Your task to perform on an android device: Do I have any events tomorrow? Image 0: 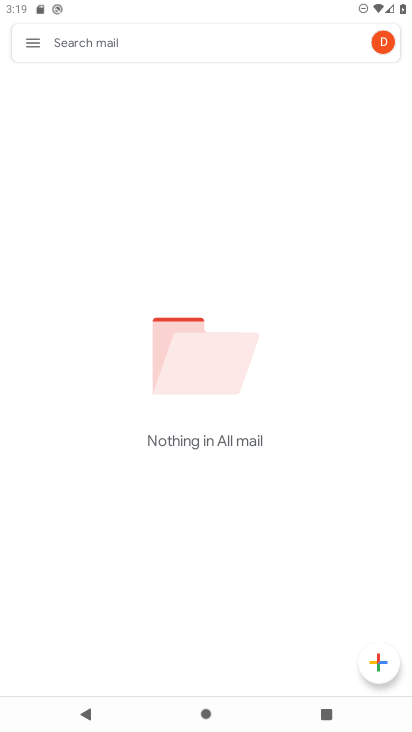
Step 0: press home button
Your task to perform on an android device: Do I have any events tomorrow? Image 1: 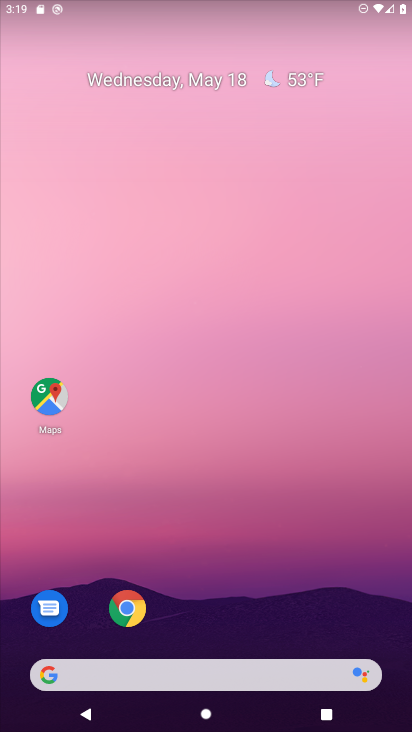
Step 1: drag from (136, 654) to (183, 321)
Your task to perform on an android device: Do I have any events tomorrow? Image 2: 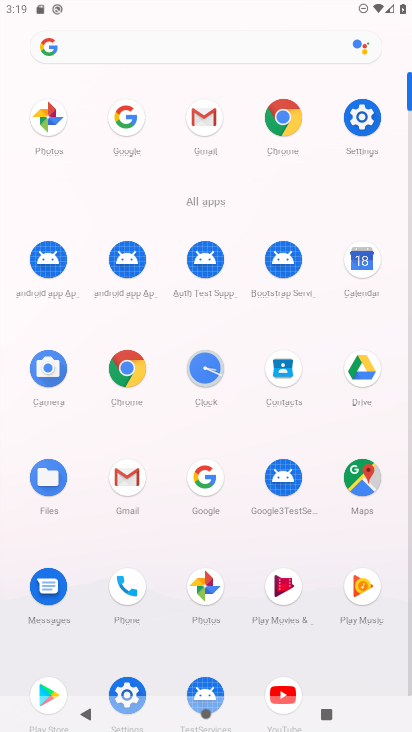
Step 2: click (379, 266)
Your task to perform on an android device: Do I have any events tomorrow? Image 3: 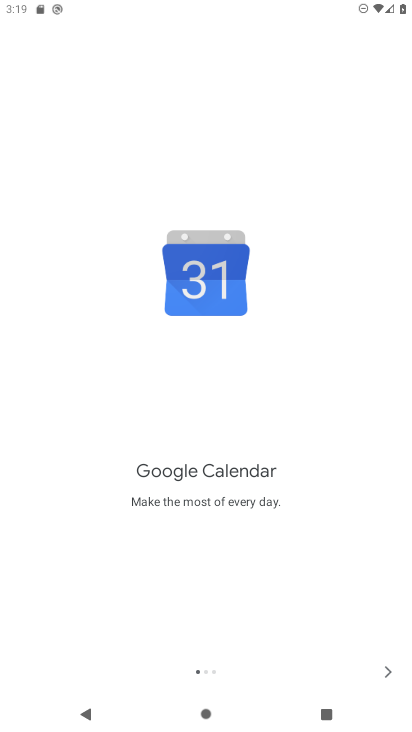
Step 3: click (385, 677)
Your task to perform on an android device: Do I have any events tomorrow? Image 4: 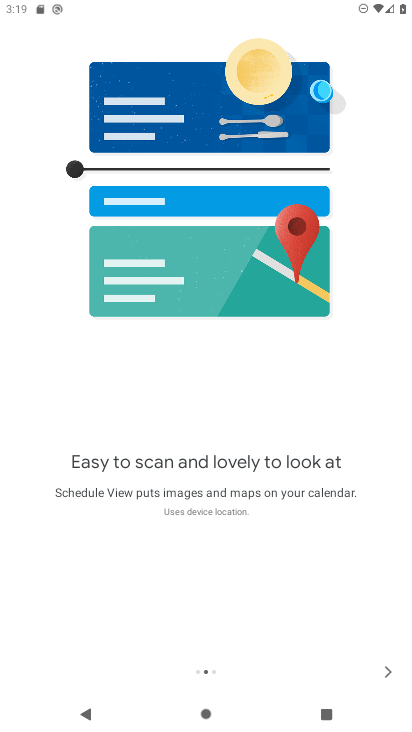
Step 4: click (384, 677)
Your task to perform on an android device: Do I have any events tomorrow? Image 5: 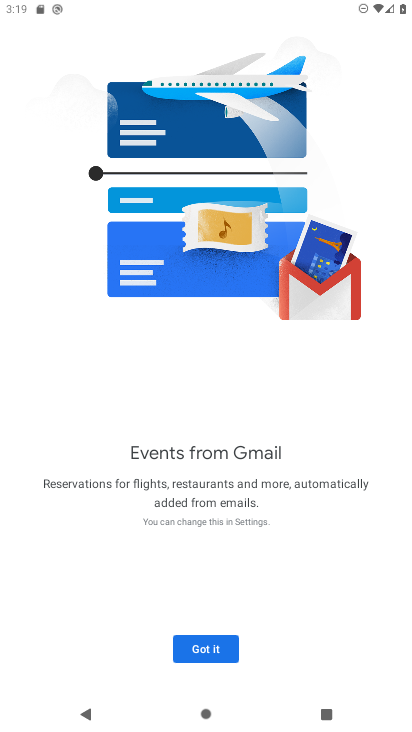
Step 5: click (216, 649)
Your task to perform on an android device: Do I have any events tomorrow? Image 6: 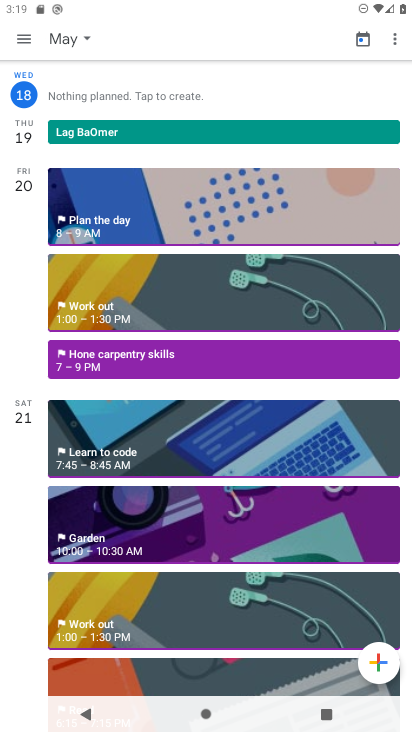
Step 6: drag from (112, 161) to (226, 546)
Your task to perform on an android device: Do I have any events tomorrow? Image 7: 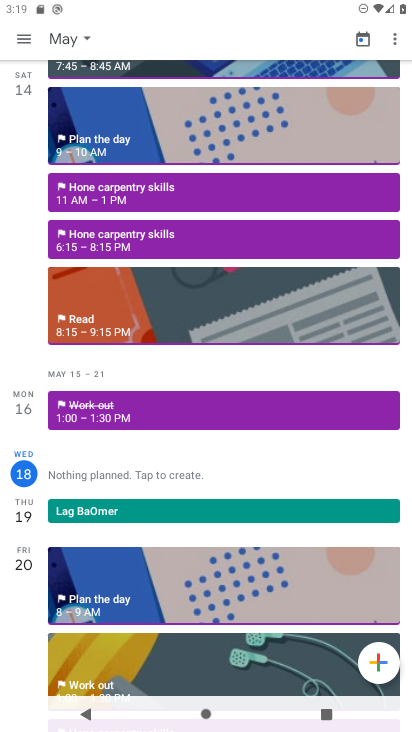
Step 7: click (78, 31)
Your task to perform on an android device: Do I have any events tomorrow? Image 8: 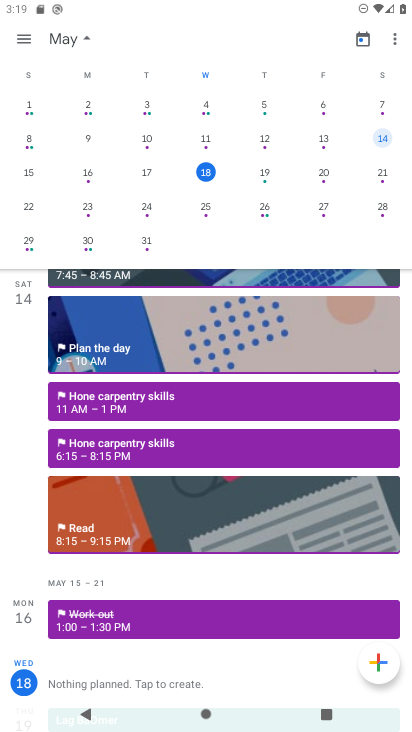
Step 8: click (261, 177)
Your task to perform on an android device: Do I have any events tomorrow? Image 9: 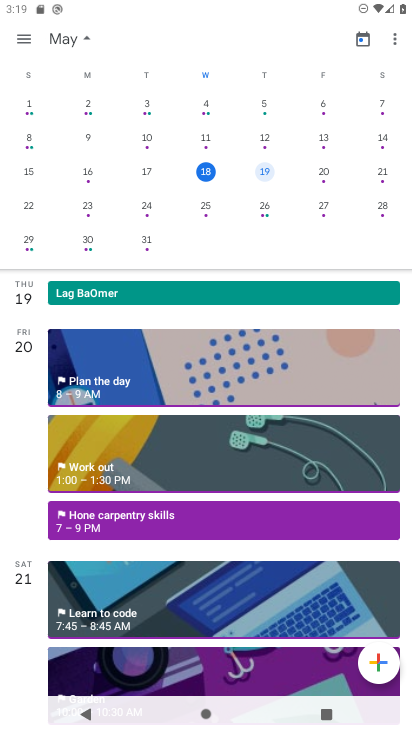
Step 9: click (117, 299)
Your task to perform on an android device: Do I have any events tomorrow? Image 10: 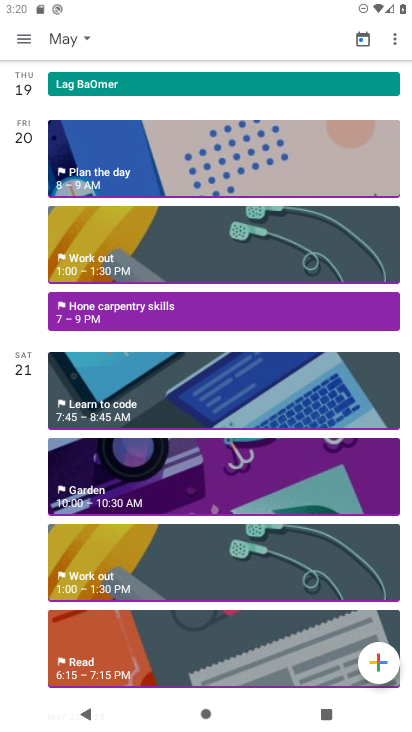
Step 10: click (106, 82)
Your task to perform on an android device: Do I have any events tomorrow? Image 11: 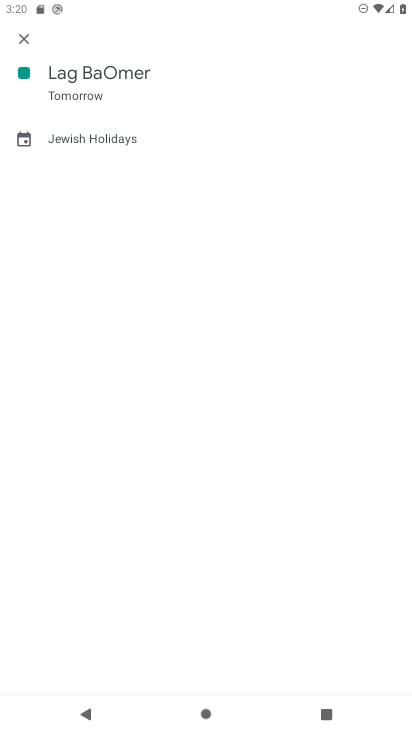
Step 11: task complete